Your task to perform on an android device: Open Google Image 0: 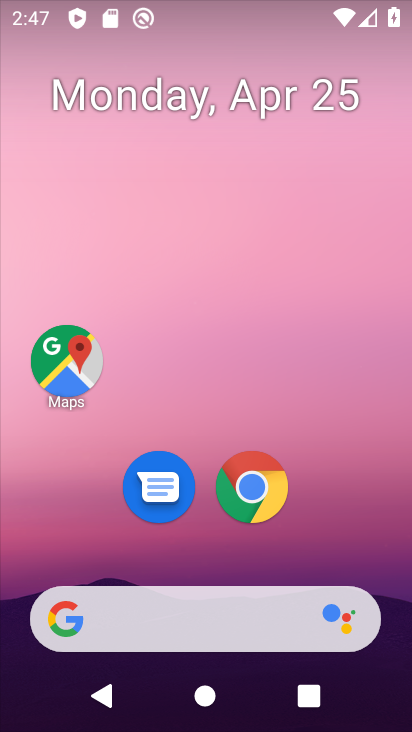
Step 0: drag from (89, 564) to (212, 86)
Your task to perform on an android device: Open Google Image 1: 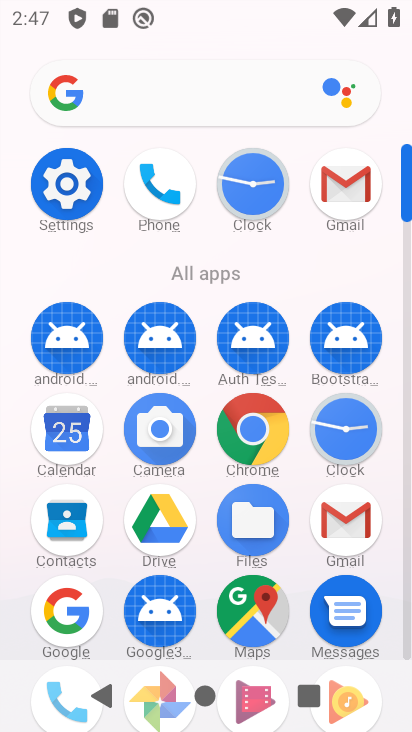
Step 1: click (80, 624)
Your task to perform on an android device: Open Google Image 2: 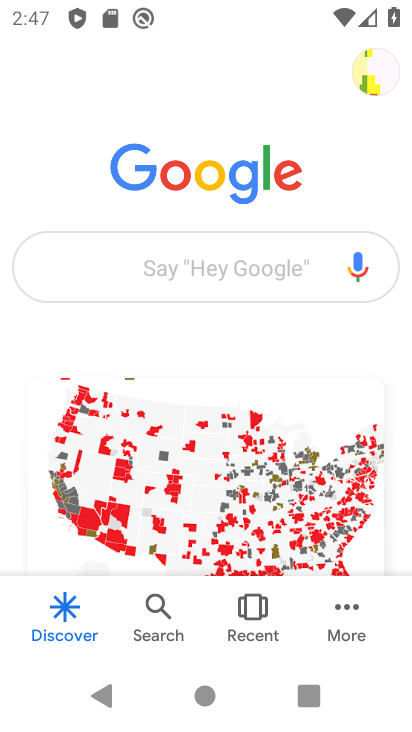
Step 2: task complete